Your task to perform on an android device: When is my next meeting? Image 0: 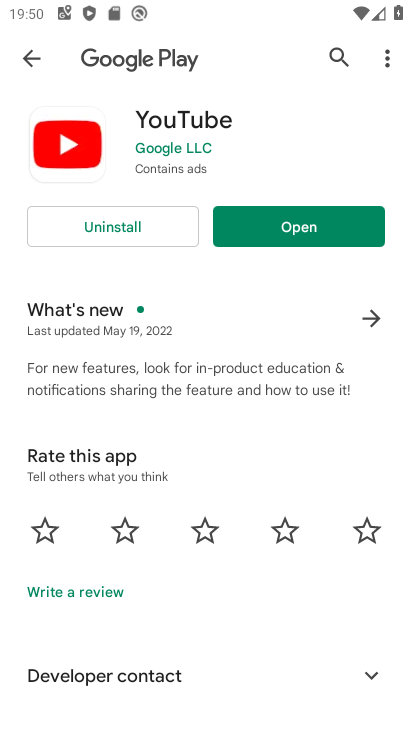
Step 0: press home button
Your task to perform on an android device: When is my next meeting? Image 1: 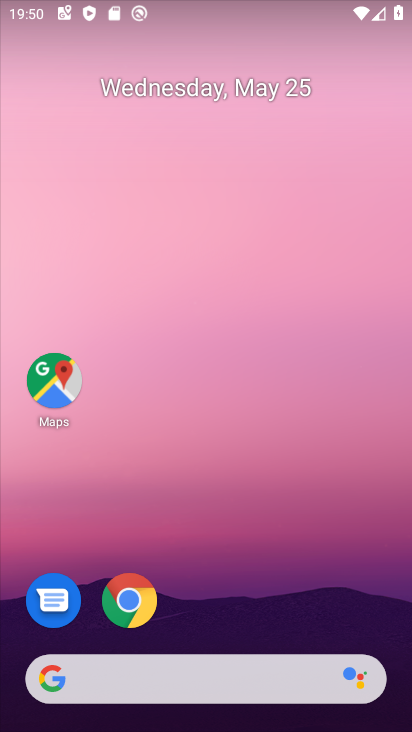
Step 1: drag from (313, 551) to (274, 265)
Your task to perform on an android device: When is my next meeting? Image 2: 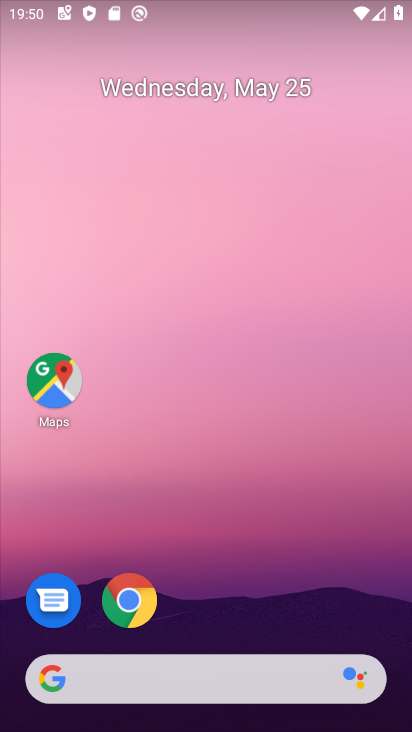
Step 2: drag from (301, 594) to (318, 210)
Your task to perform on an android device: When is my next meeting? Image 3: 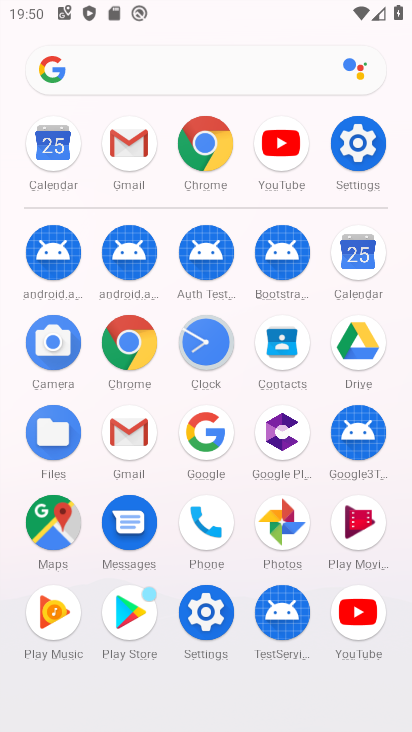
Step 3: click (355, 259)
Your task to perform on an android device: When is my next meeting? Image 4: 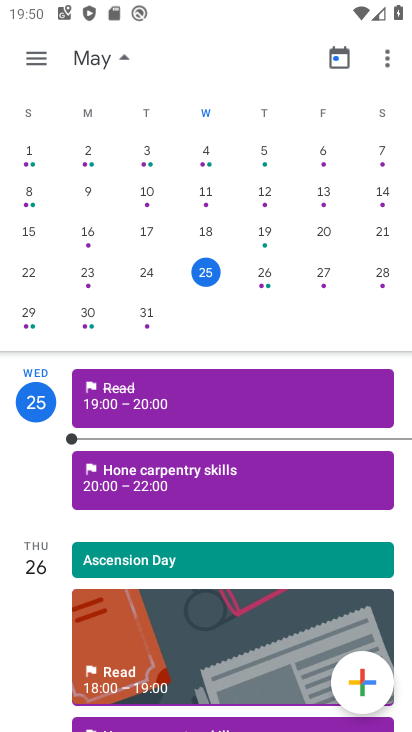
Step 4: task complete